Your task to perform on an android device: Go to display settings Image 0: 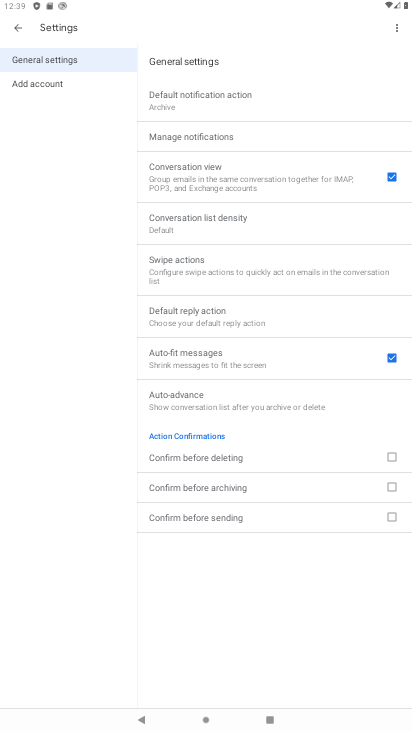
Step 0: press home button
Your task to perform on an android device: Go to display settings Image 1: 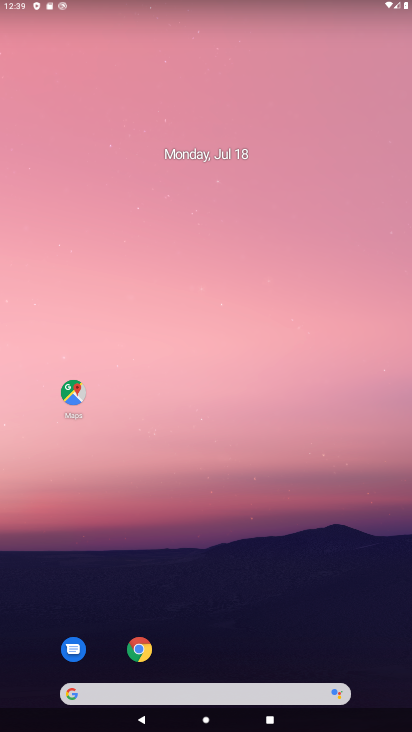
Step 1: drag from (22, 686) to (107, 290)
Your task to perform on an android device: Go to display settings Image 2: 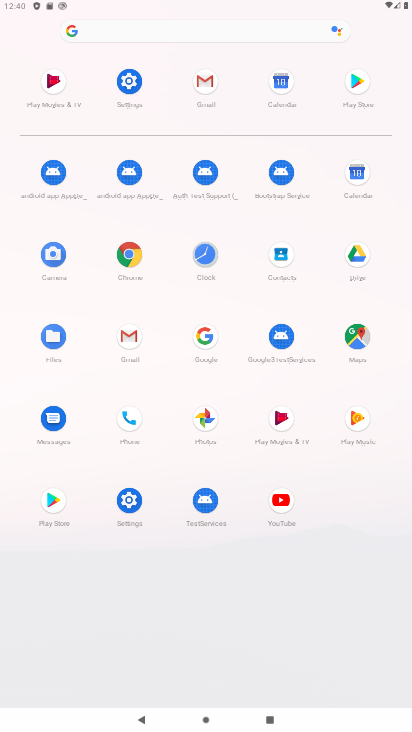
Step 2: click (125, 506)
Your task to perform on an android device: Go to display settings Image 3: 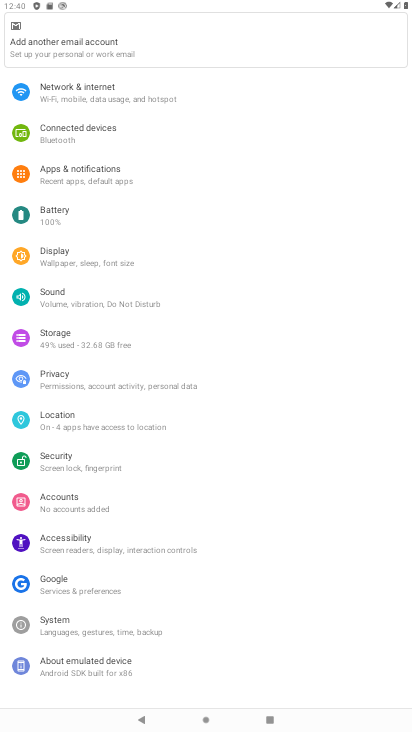
Step 3: click (90, 253)
Your task to perform on an android device: Go to display settings Image 4: 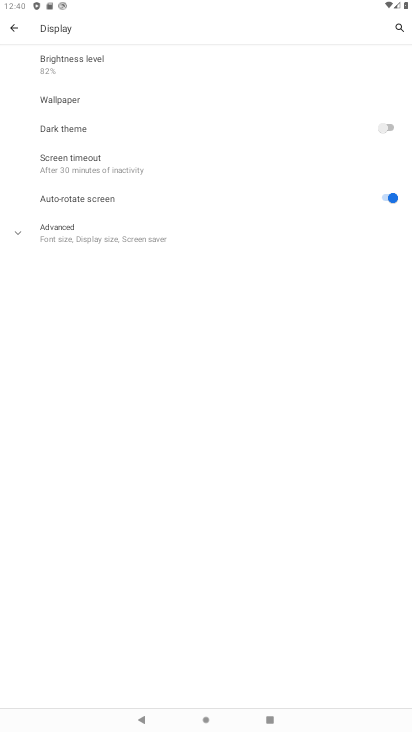
Step 4: task complete